Your task to perform on an android device: Search for pizza restaurants on Maps Image 0: 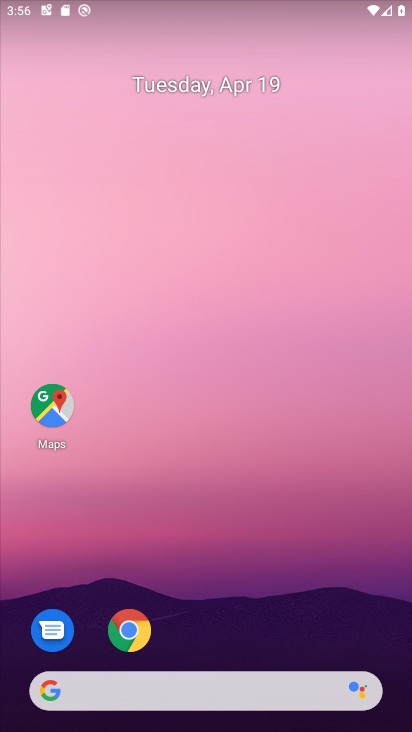
Step 0: click (61, 410)
Your task to perform on an android device: Search for pizza restaurants on Maps Image 1: 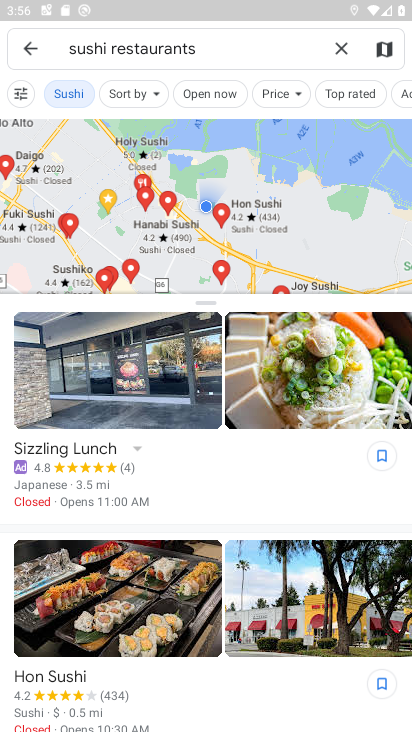
Step 1: click (339, 51)
Your task to perform on an android device: Search for pizza restaurants on Maps Image 2: 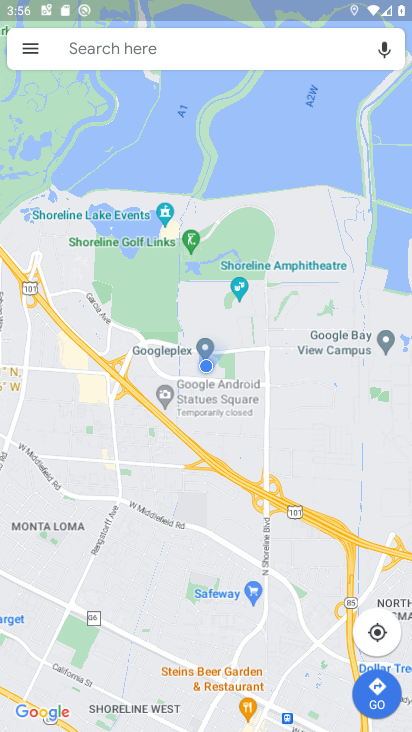
Step 2: type "pizza restaurant"
Your task to perform on an android device: Search for pizza restaurants on Maps Image 3: 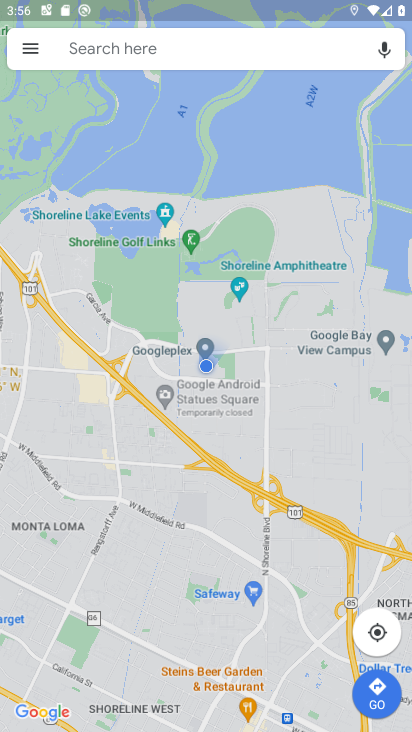
Step 3: click (181, 51)
Your task to perform on an android device: Search for pizza restaurants on Maps Image 4: 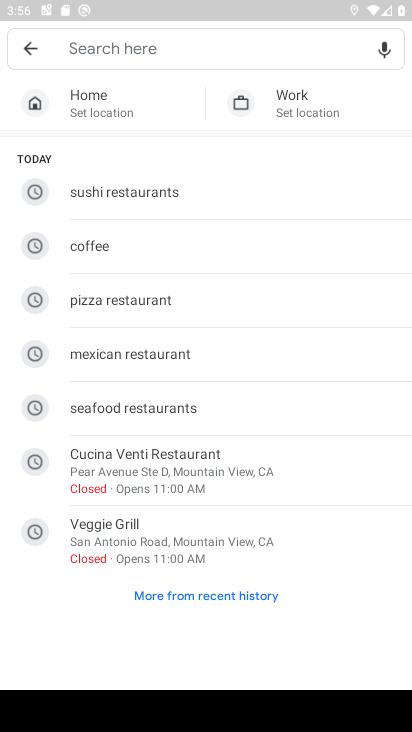
Step 4: type "pizza restaurant"
Your task to perform on an android device: Search for pizza restaurants on Maps Image 5: 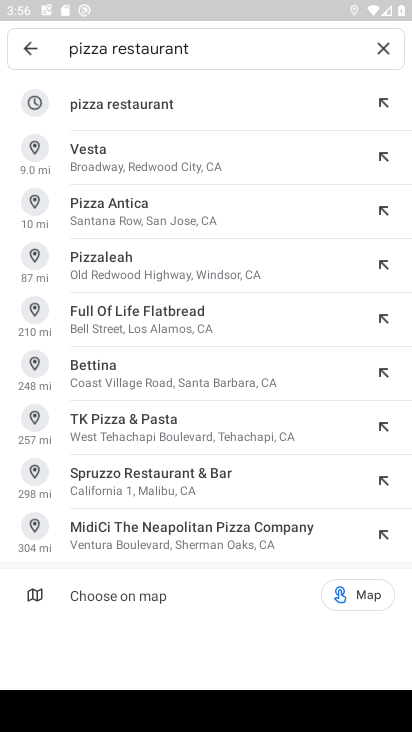
Step 5: click (125, 103)
Your task to perform on an android device: Search for pizza restaurants on Maps Image 6: 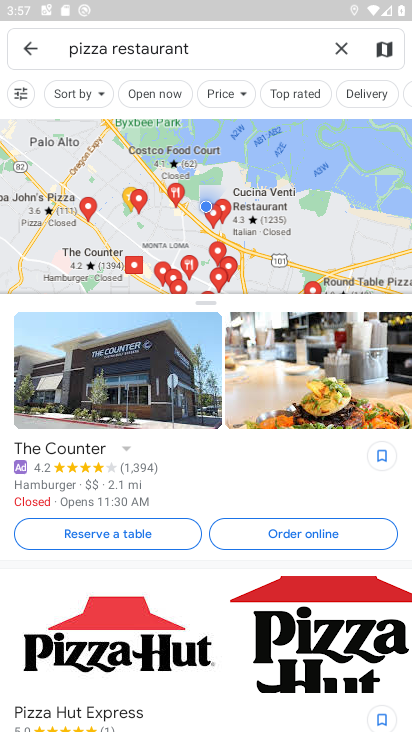
Step 6: task complete